Your task to perform on an android device: empty trash in the gmail app Image 0: 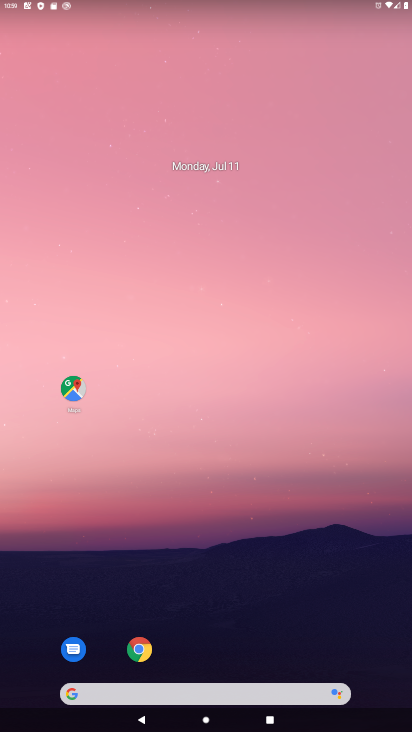
Step 0: click (361, 559)
Your task to perform on an android device: empty trash in the gmail app Image 1: 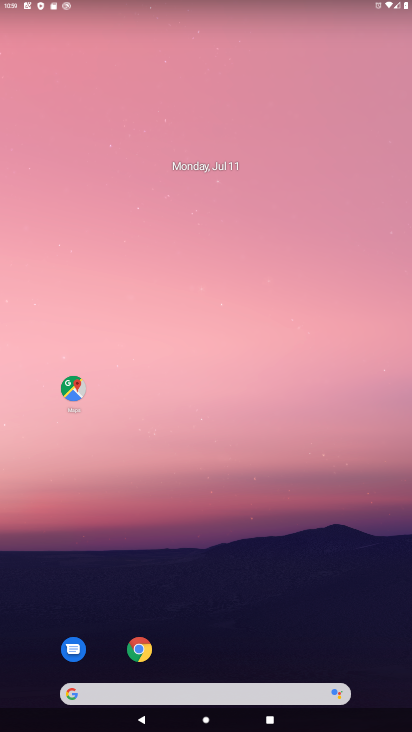
Step 1: drag from (362, 670) to (12, 55)
Your task to perform on an android device: empty trash in the gmail app Image 2: 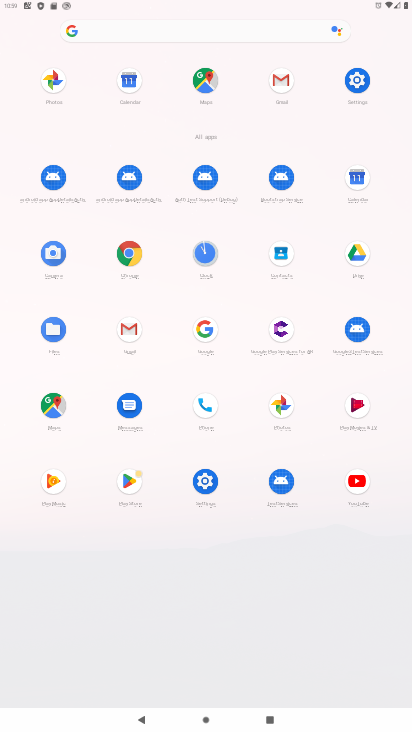
Step 2: click (126, 328)
Your task to perform on an android device: empty trash in the gmail app Image 3: 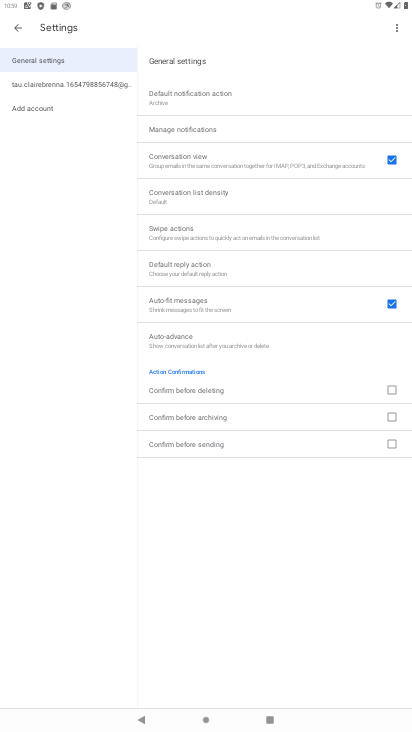
Step 3: click (19, 28)
Your task to perform on an android device: empty trash in the gmail app Image 4: 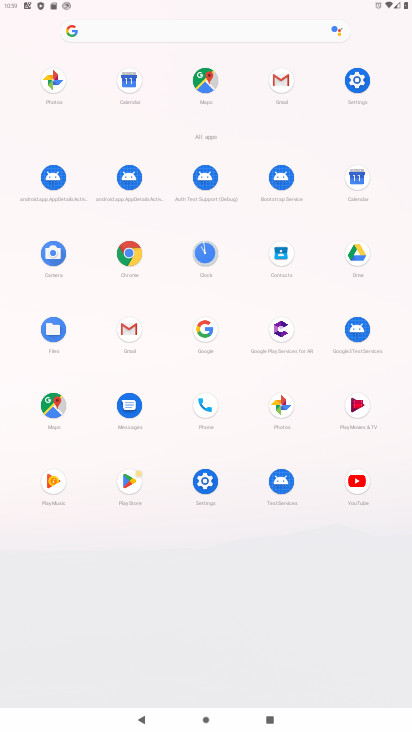
Step 4: click (121, 335)
Your task to perform on an android device: empty trash in the gmail app Image 5: 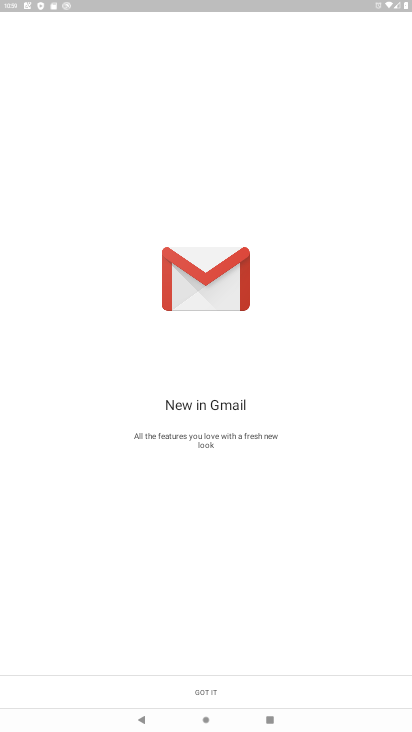
Step 5: click (205, 690)
Your task to perform on an android device: empty trash in the gmail app Image 6: 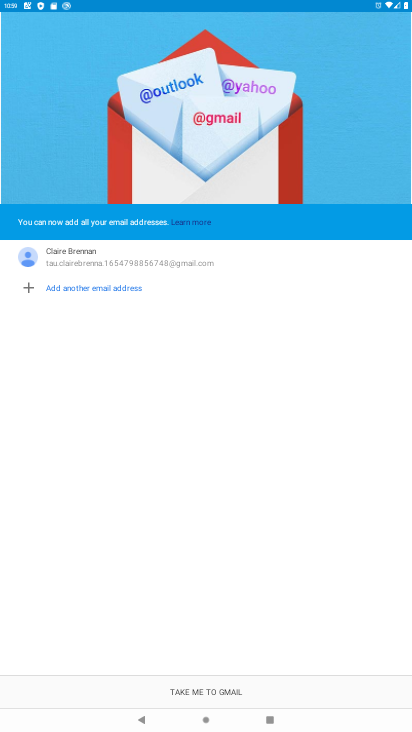
Step 6: click (209, 685)
Your task to perform on an android device: empty trash in the gmail app Image 7: 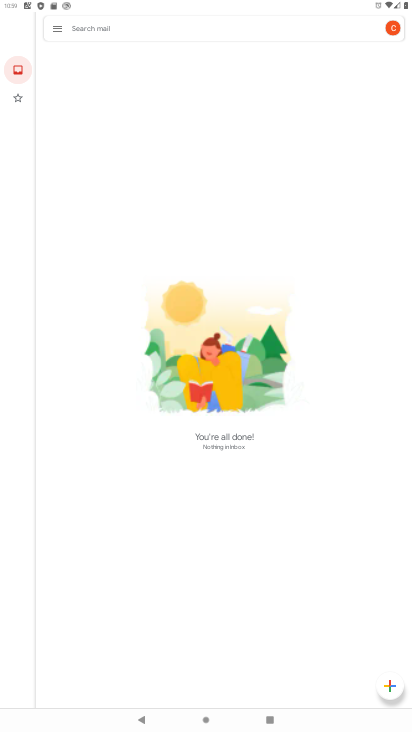
Step 7: click (55, 27)
Your task to perform on an android device: empty trash in the gmail app Image 8: 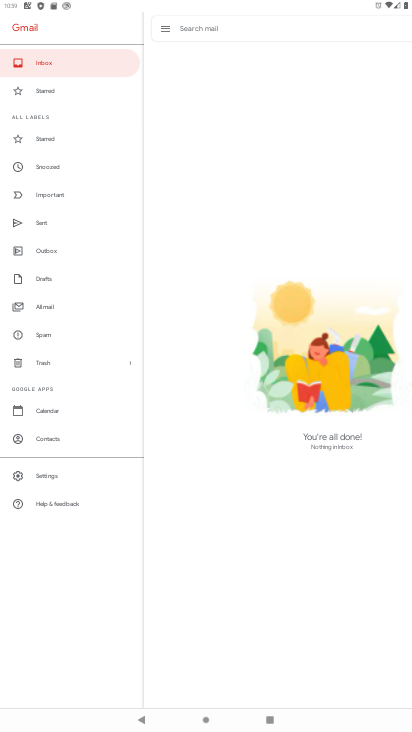
Step 8: click (27, 359)
Your task to perform on an android device: empty trash in the gmail app Image 9: 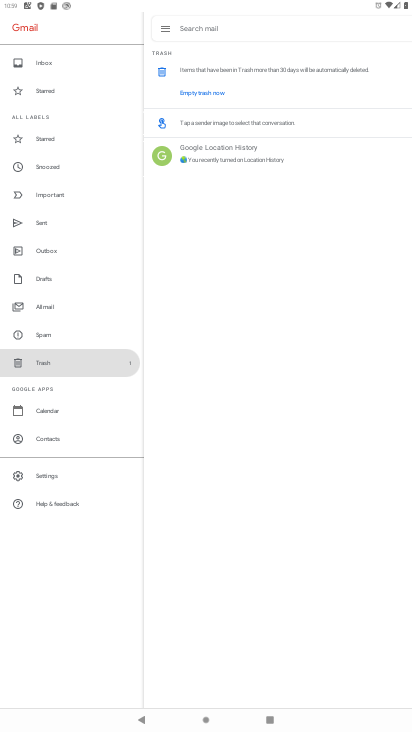
Step 9: task complete